Your task to perform on an android device: uninstall "Life360: Find Family & Friends" Image 0: 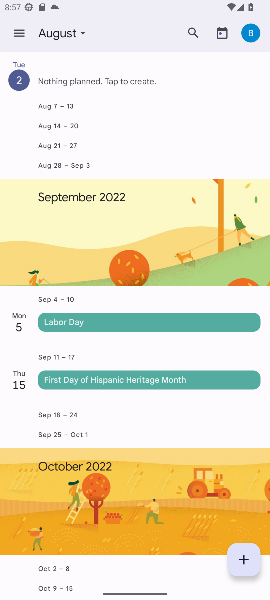
Step 0: press home button
Your task to perform on an android device: uninstall "Life360: Find Family & Friends" Image 1: 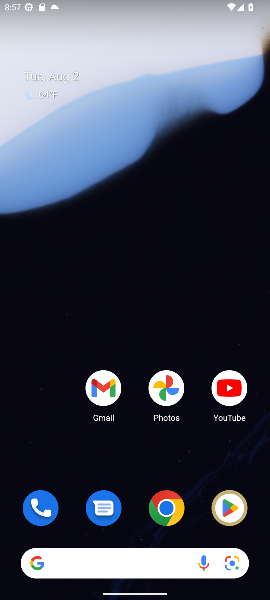
Step 1: drag from (157, 435) to (197, 150)
Your task to perform on an android device: uninstall "Life360: Find Family & Friends" Image 2: 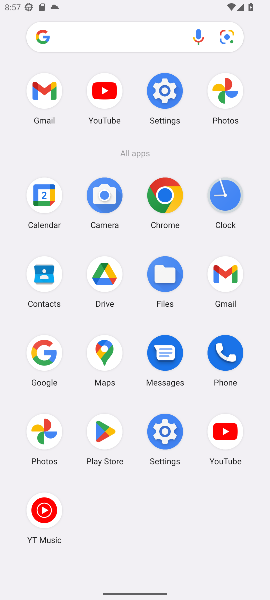
Step 2: click (108, 438)
Your task to perform on an android device: uninstall "Life360: Find Family & Friends" Image 3: 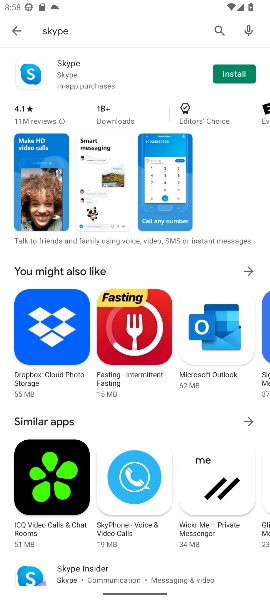
Step 3: click (14, 29)
Your task to perform on an android device: uninstall "Life360: Find Family & Friends" Image 4: 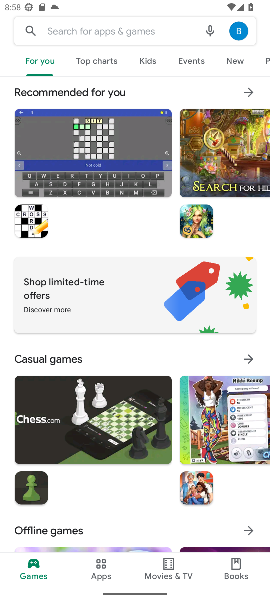
Step 4: click (97, 34)
Your task to perform on an android device: uninstall "Life360: Find Family & Friends" Image 5: 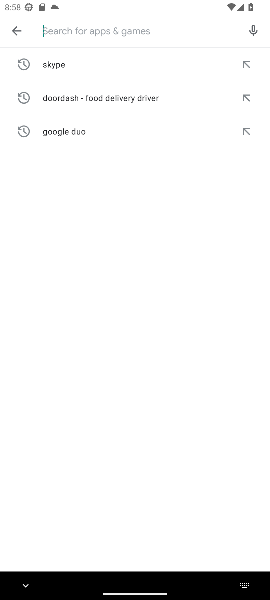
Step 5: type "Life360: Find Family & Friends"
Your task to perform on an android device: uninstall "Life360: Find Family & Friends" Image 6: 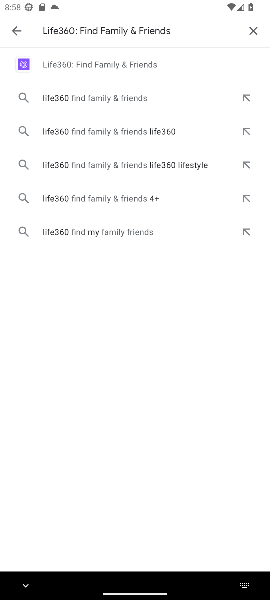
Step 6: click (134, 68)
Your task to perform on an android device: uninstall "Life360: Find Family & Friends" Image 7: 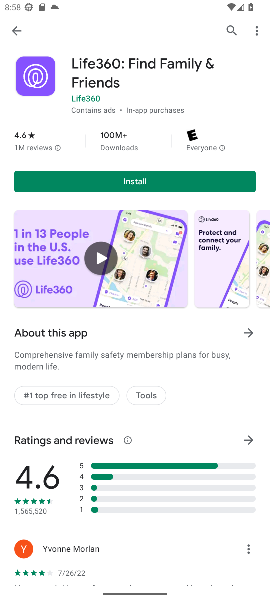
Step 7: click (18, 28)
Your task to perform on an android device: uninstall "Life360: Find Family & Friends" Image 8: 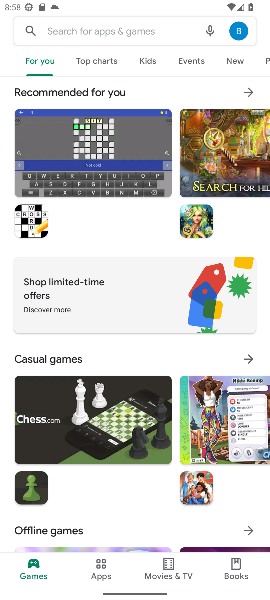
Step 8: click (89, 28)
Your task to perform on an android device: uninstall "Life360: Find Family & Friends" Image 9: 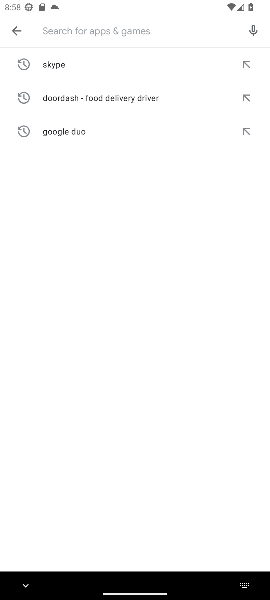
Step 9: type "Life360: Find Family & Friends"
Your task to perform on an android device: uninstall "Life360: Find Family & Friends" Image 10: 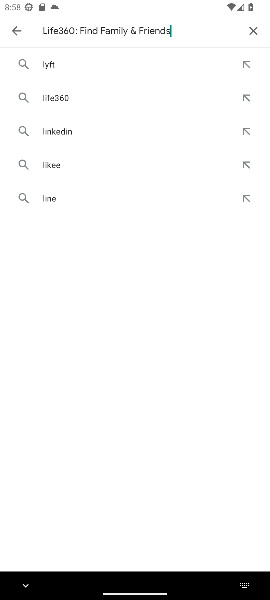
Step 10: type ""
Your task to perform on an android device: uninstall "Life360: Find Family & Friends" Image 11: 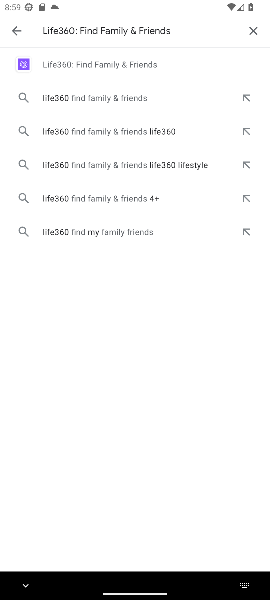
Step 11: click (159, 57)
Your task to perform on an android device: uninstall "Life360: Find Family & Friends" Image 12: 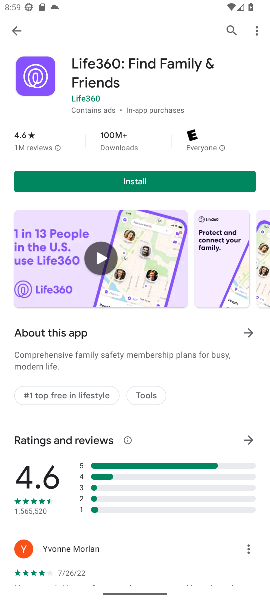
Step 12: task complete